Your task to perform on an android device: Open Google Chrome and click the shortcut for Amazon.com Image 0: 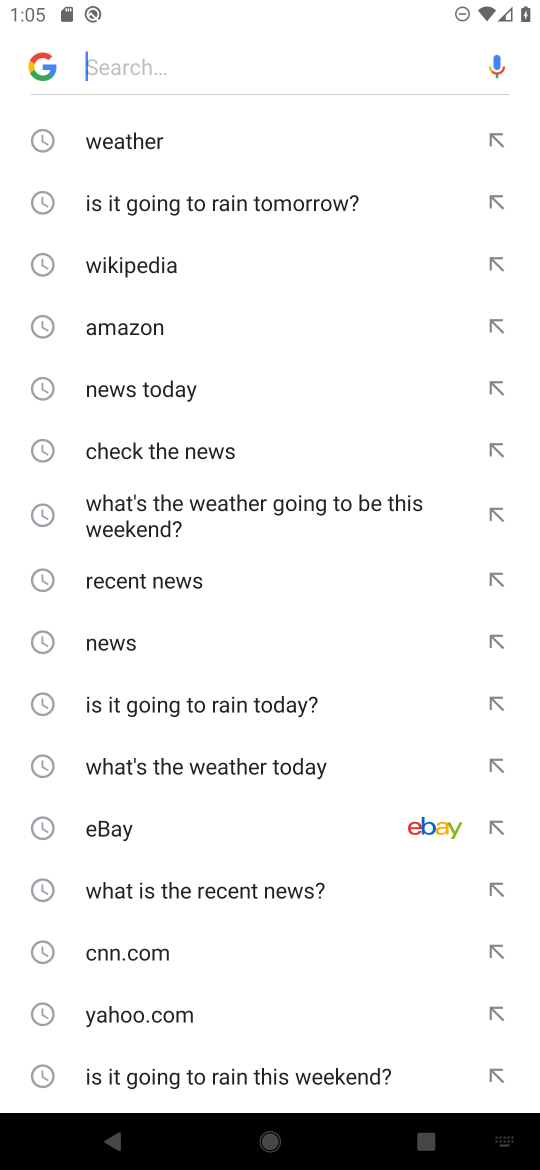
Step 0: press home button
Your task to perform on an android device: Open Google Chrome and click the shortcut for Amazon.com Image 1: 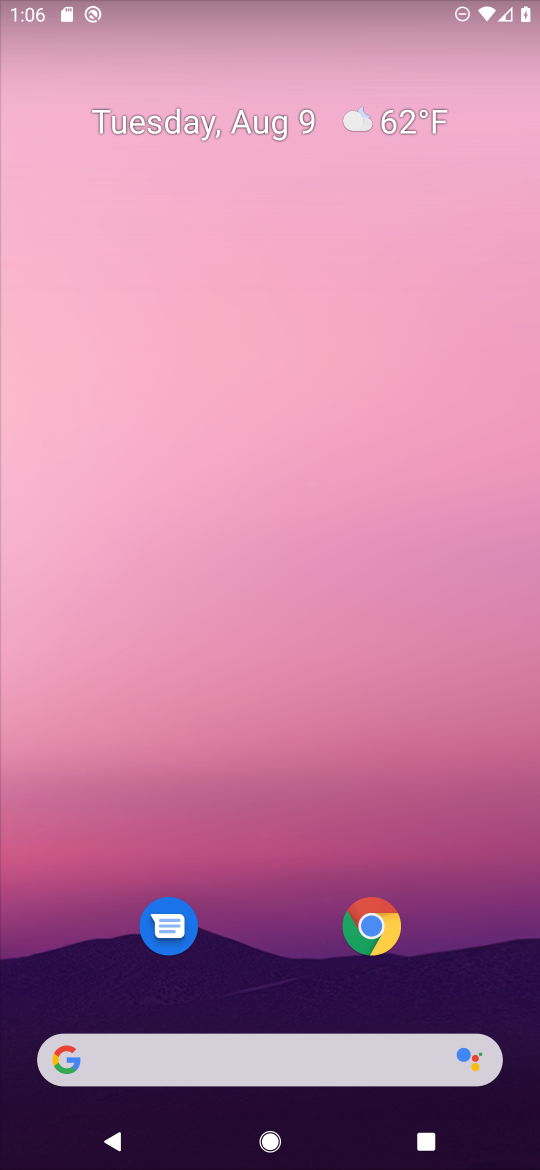
Step 1: click (367, 926)
Your task to perform on an android device: Open Google Chrome and click the shortcut for Amazon.com Image 2: 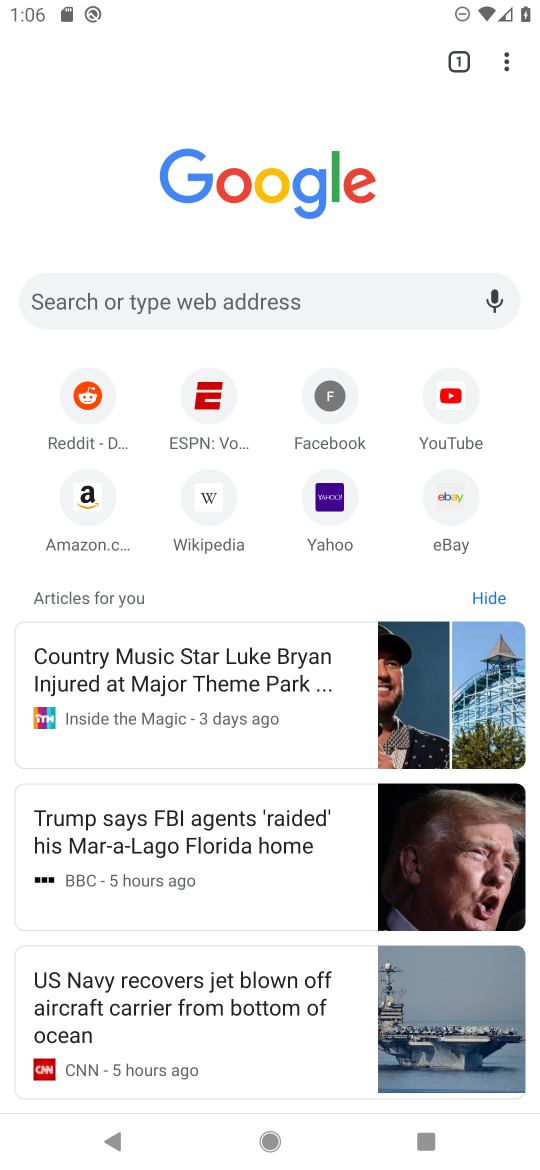
Step 2: click (69, 485)
Your task to perform on an android device: Open Google Chrome and click the shortcut for Amazon.com Image 3: 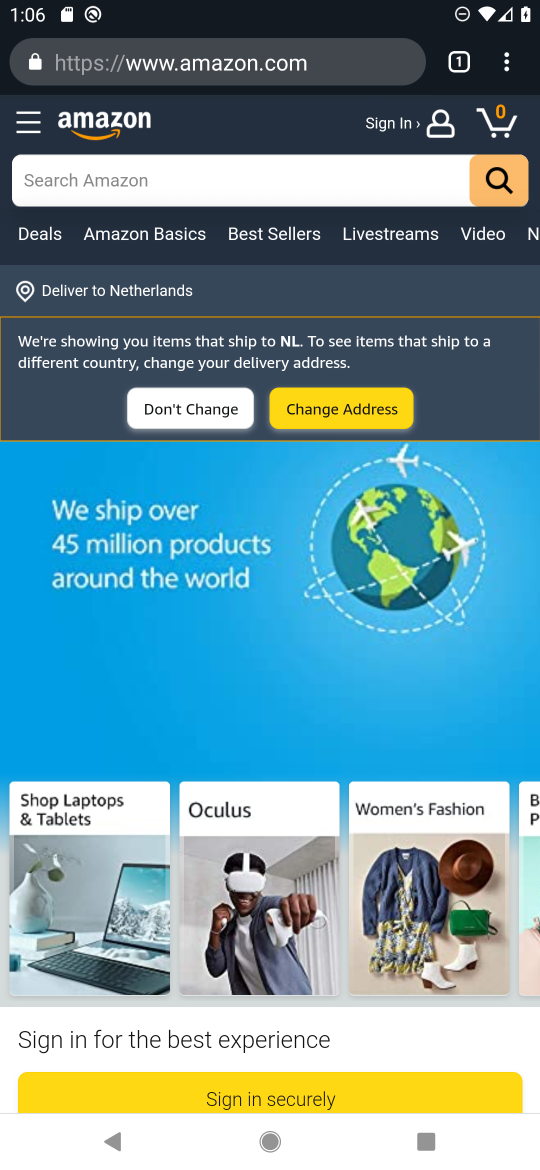
Step 3: task complete